Your task to perform on an android device: find which apps use the phone's location Image 0: 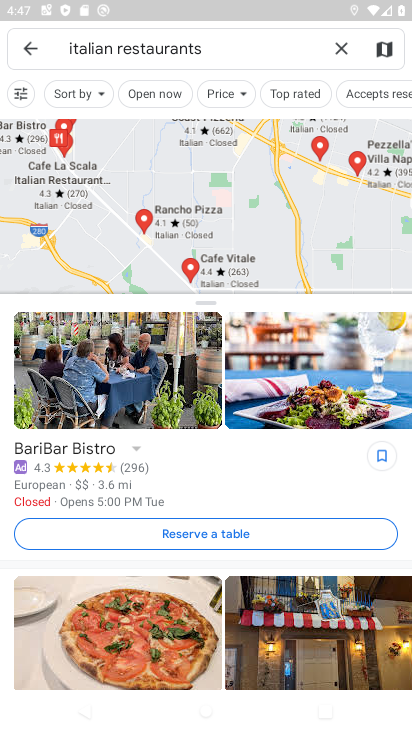
Step 0: press home button
Your task to perform on an android device: find which apps use the phone's location Image 1: 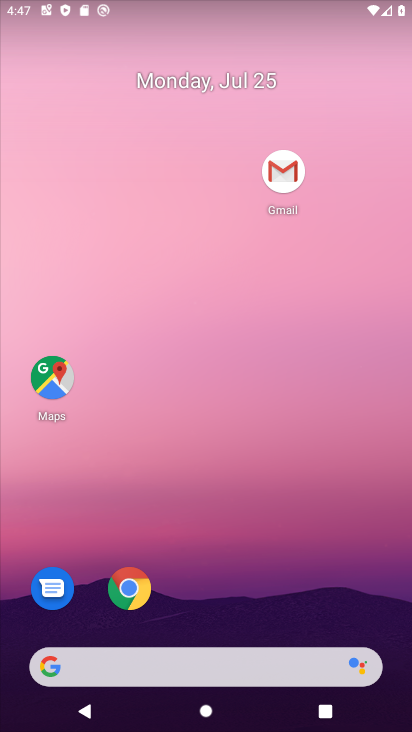
Step 1: drag from (236, 568) to (336, 115)
Your task to perform on an android device: find which apps use the phone's location Image 2: 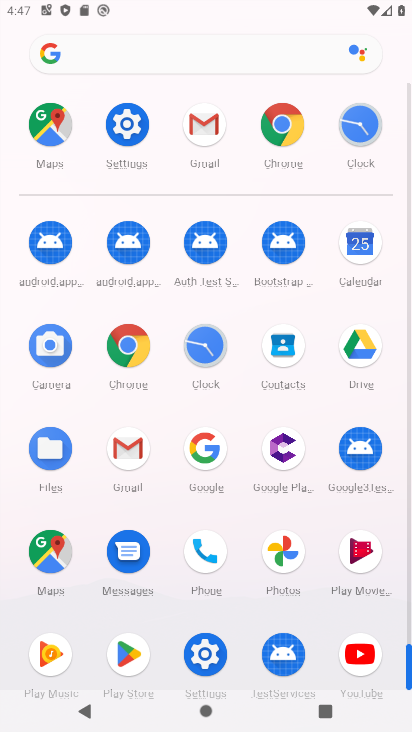
Step 2: click (127, 115)
Your task to perform on an android device: find which apps use the phone's location Image 3: 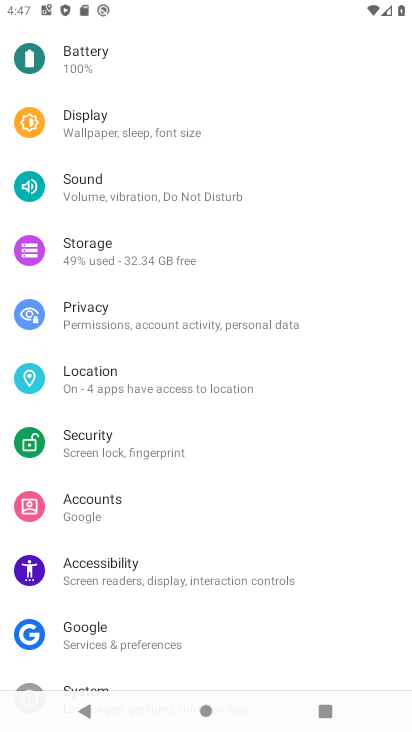
Step 3: click (103, 384)
Your task to perform on an android device: find which apps use the phone's location Image 4: 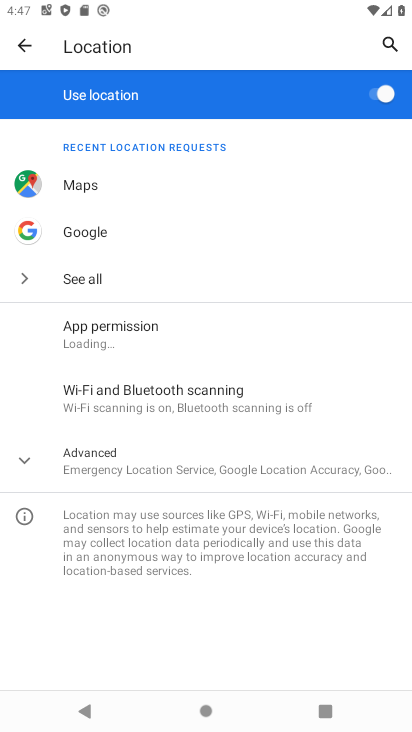
Step 4: click (120, 341)
Your task to perform on an android device: find which apps use the phone's location Image 5: 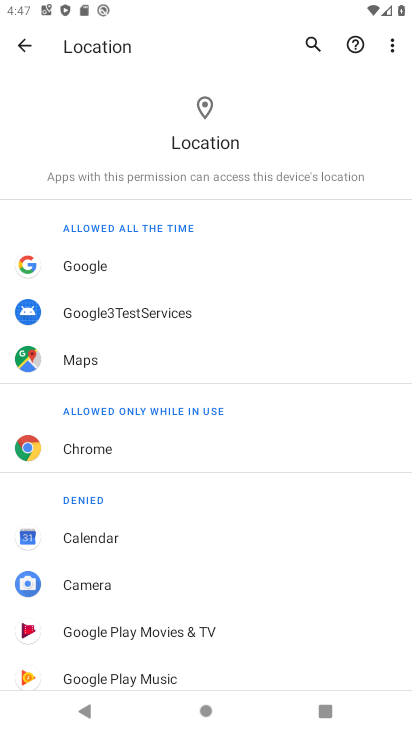
Step 5: task complete